Your task to perform on an android device: open a new tab in the chrome app Image 0: 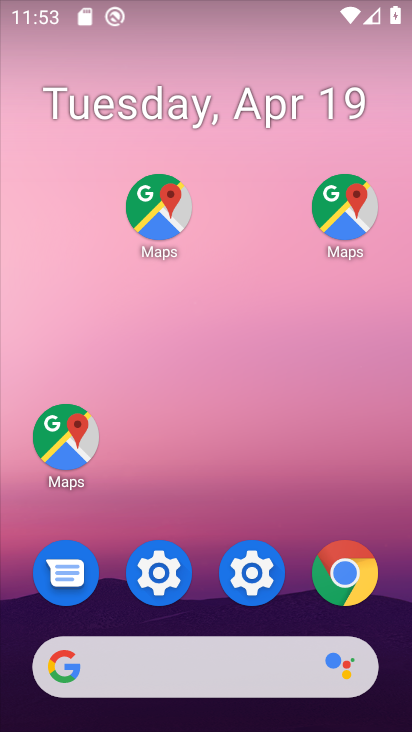
Step 0: click (355, 566)
Your task to perform on an android device: open a new tab in the chrome app Image 1: 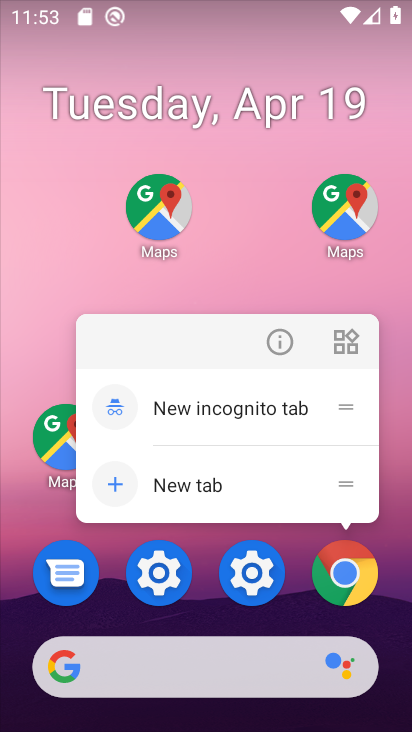
Step 1: click (335, 578)
Your task to perform on an android device: open a new tab in the chrome app Image 2: 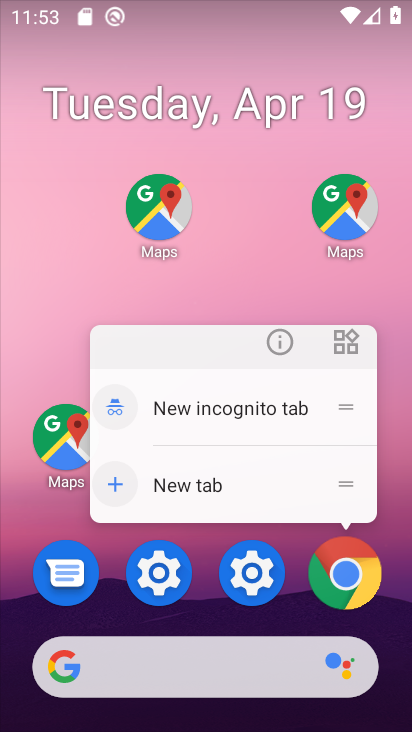
Step 2: drag from (335, 578) to (370, 577)
Your task to perform on an android device: open a new tab in the chrome app Image 3: 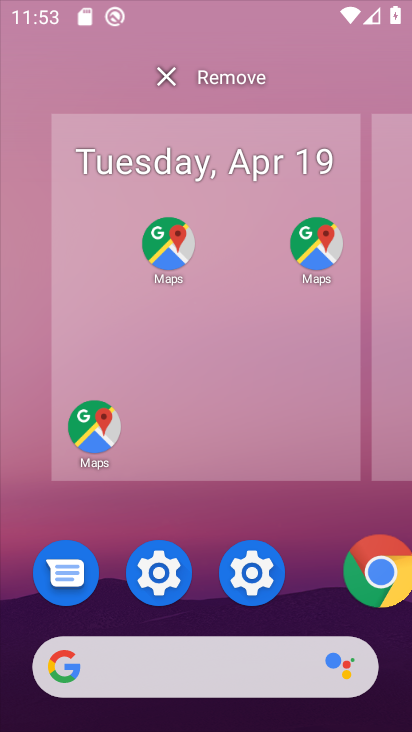
Step 3: click (370, 577)
Your task to perform on an android device: open a new tab in the chrome app Image 4: 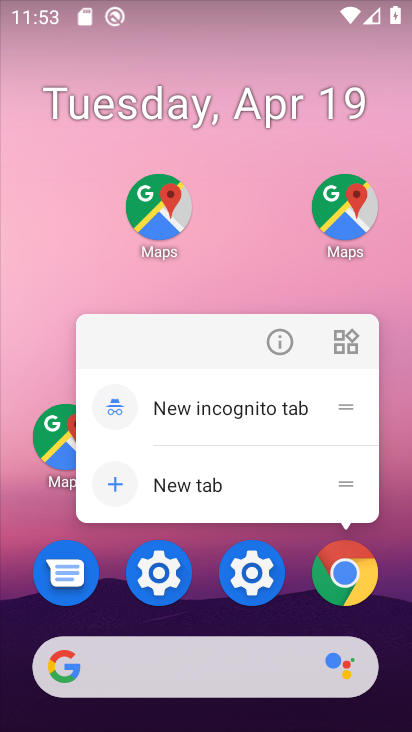
Step 4: click (346, 563)
Your task to perform on an android device: open a new tab in the chrome app Image 5: 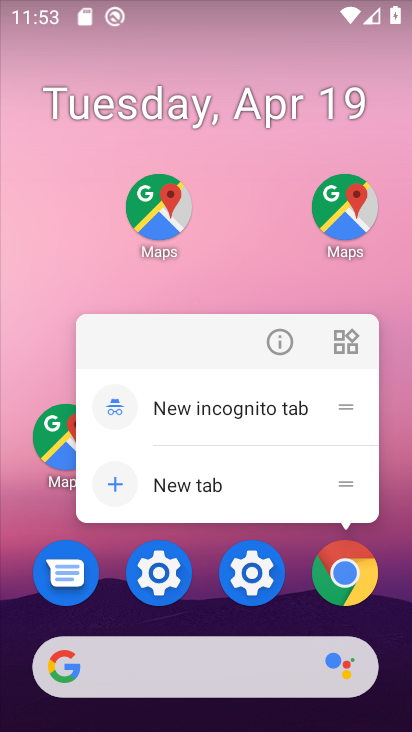
Step 5: click (330, 567)
Your task to perform on an android device: open a new tab in the chrome app Image 6: 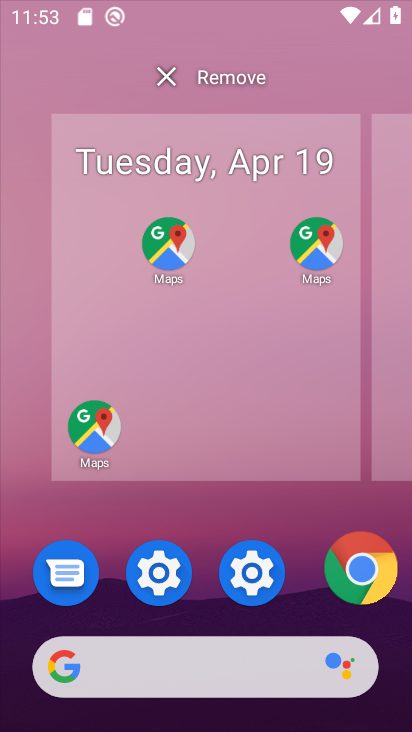
Step 6: click (346, 561)
Your task to perform on an android device: open a new tab in the chrome app Image 7: 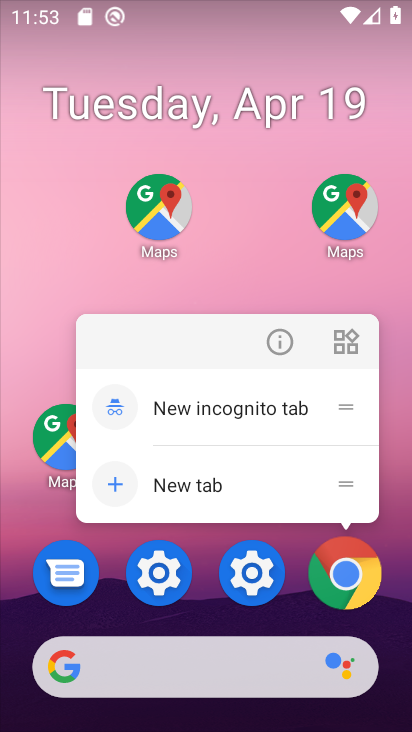
Step 7: click (359, 553)
Your task to perform on an android device: open a new tab in the chrome app Image 8: 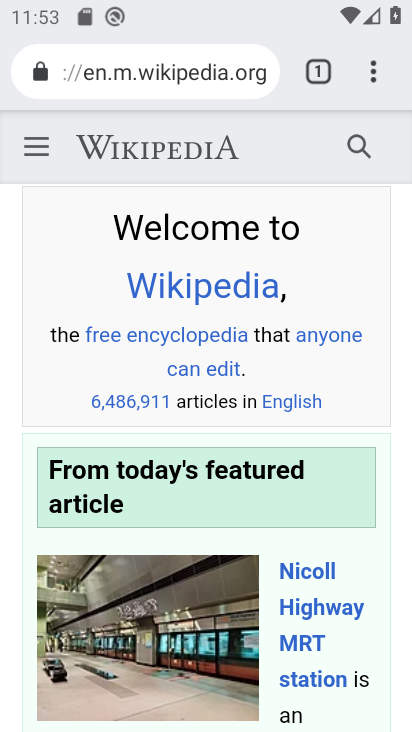
Step 8: press home button
Your task to perform on an android device: open a new tab in the chrome app Image 9: 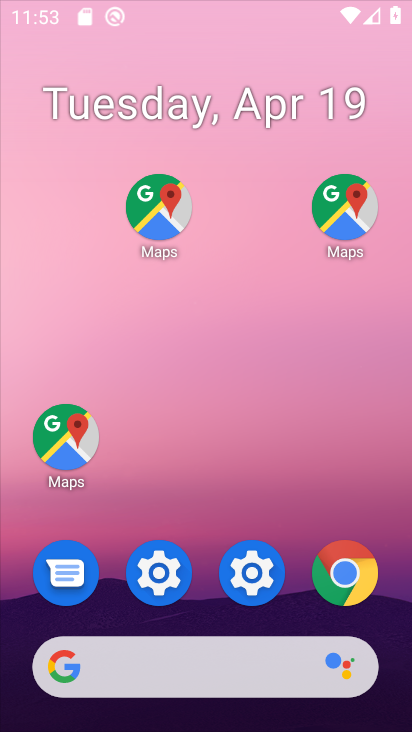
Step 9: press home button
Your task to perform on an android device: open a new tab in the chrome app Image 10: 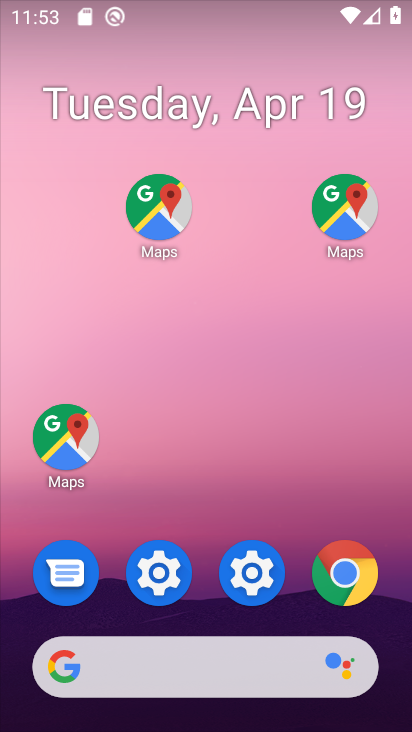
Step 10: click (347, 572)
Your task to perform on an android device: open a new tab in the chrome app Image 11: 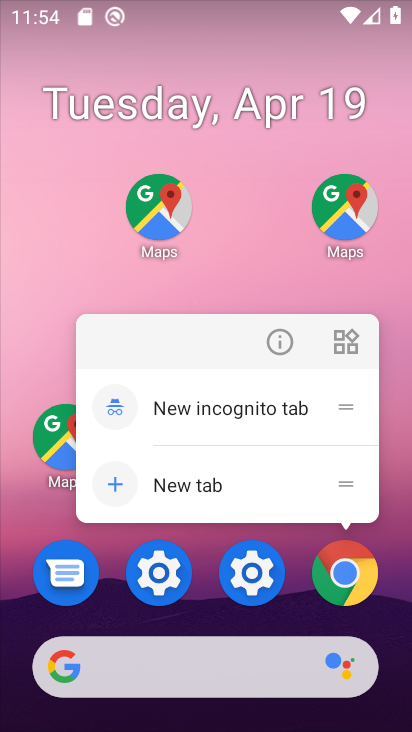
Step 11: click (352, 578)
Your task to perform on an android device: open a new tab in the chrome app Image 12: 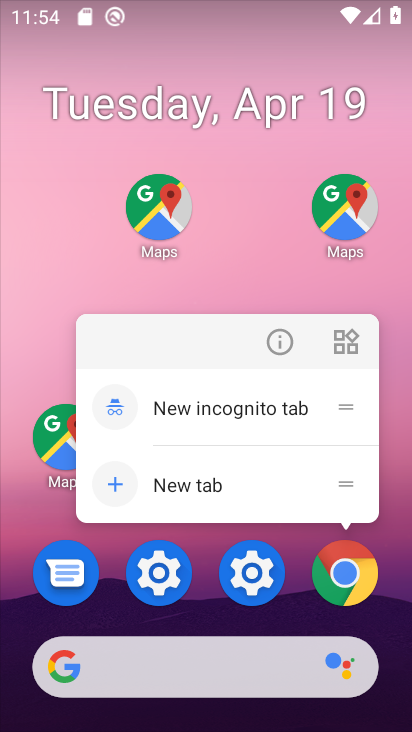
Step 12: click (342, 574)
Your task to perform on an android device: open a new tab in the chrome app Image 13: 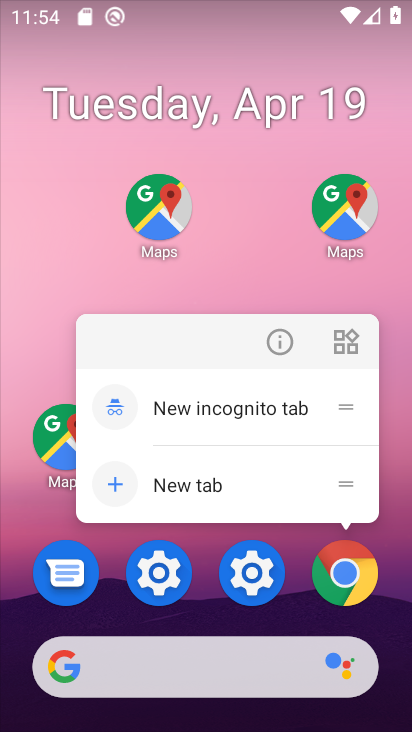
Step 13: click (342, 573)
Your task to perform on an android device: open a new tab in the chrome app Image 14: 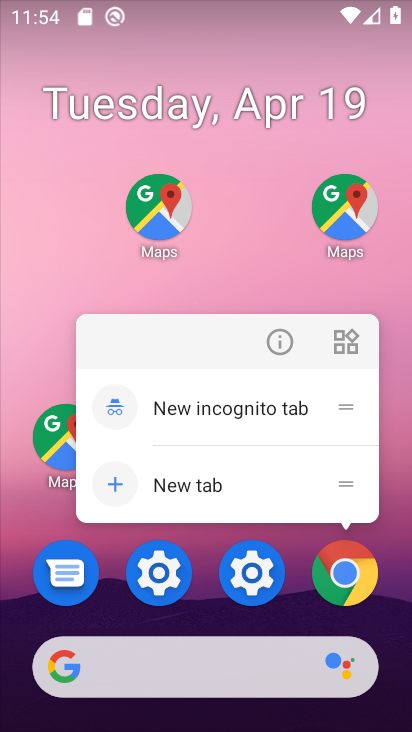
Step 14: click (107, 477)
Your task to perform on an android device: open a new tab in the chrome app Image 15: 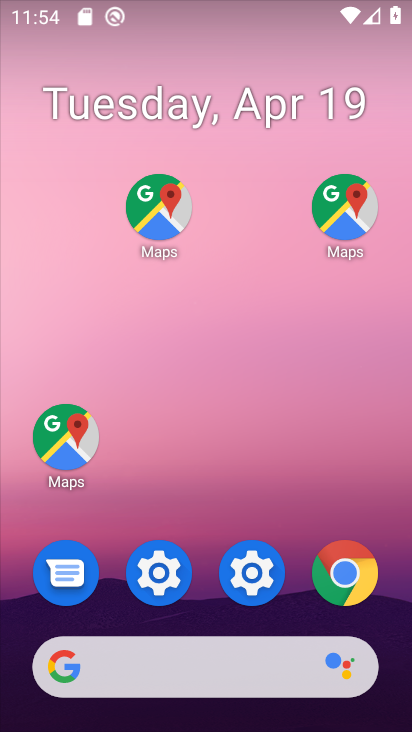
Step 15: drag from (256, 449) to (177, 70)
Your task to perform on an android device: open a new tab in the chrome app Image 16: 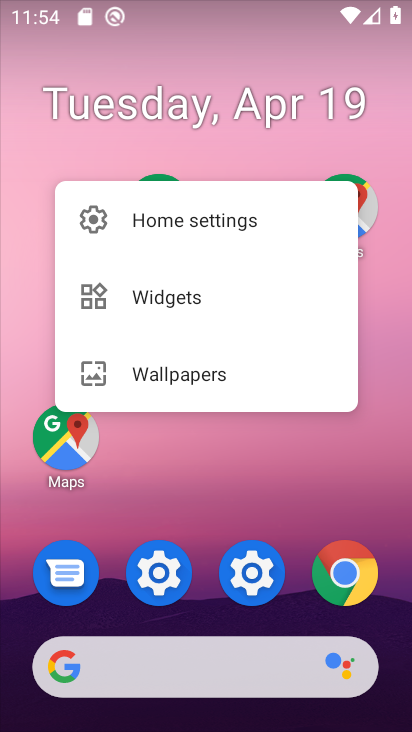
Step 16: drag from (211, 468) to (159, 221)
Your task to perform on an android device: open a new tab in the chrome app Image 17: 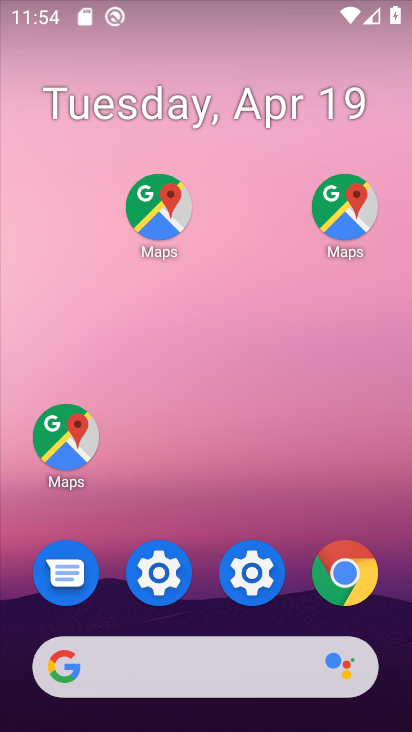
Step 17: drag from (245, 485) to (273, 189)
Your task to perform on an android device: open a new tab in the chrome app Image 18: 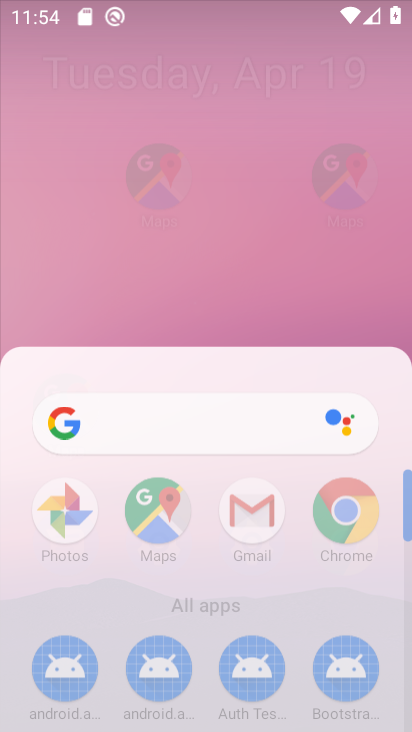
Step 18: drag from (183, 302) to (241, 99)
Your task to perform on an android device: open a new tab in the chrome app Image 19: 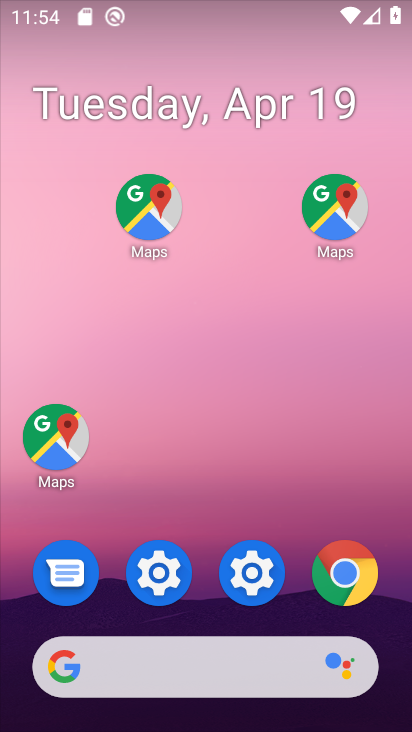
Step 19: drag from (233, 354) to (200, 125)
Your task to perform on an android device: open a new tab in the chrome app Image 20: 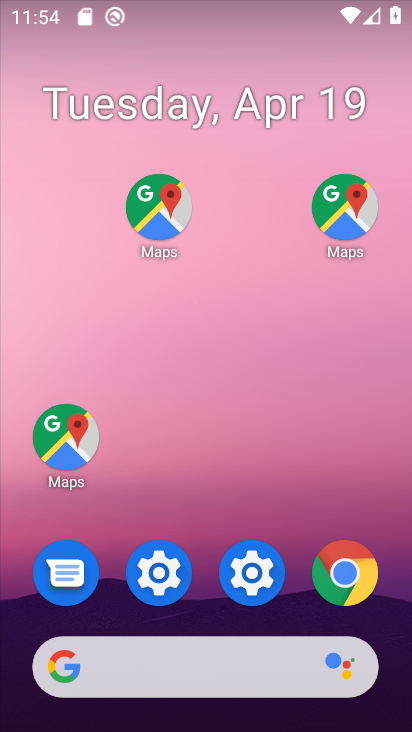
Step 20: drag from (312, 287) to (319, 145)
Your task to perform on an android device: open a new tab in the chrome app Image 21: 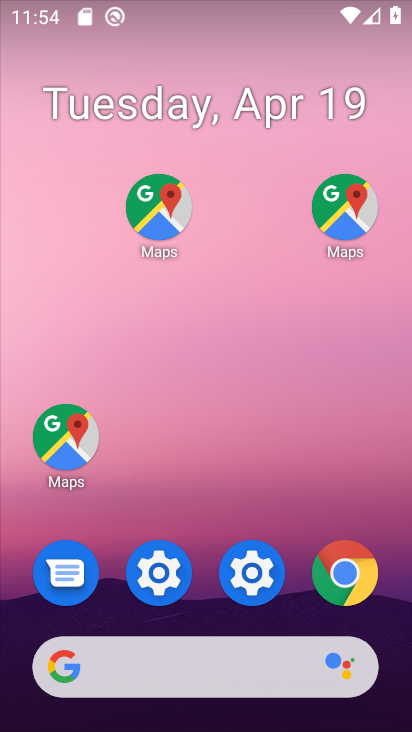
Step 21: drag from (203, 549) to (275, 201)
Your task to perform on an android device: open a new tab in the chrome app Image 22: 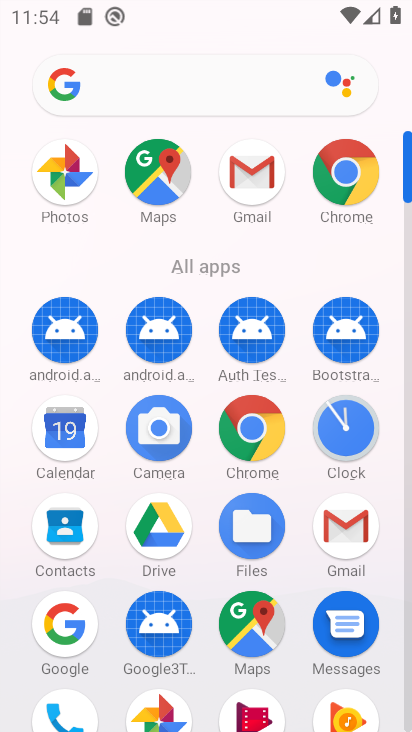
Step 22: click (349, 186)
Your task to perform on an android device: open a new tab in the chrome app Image 23: 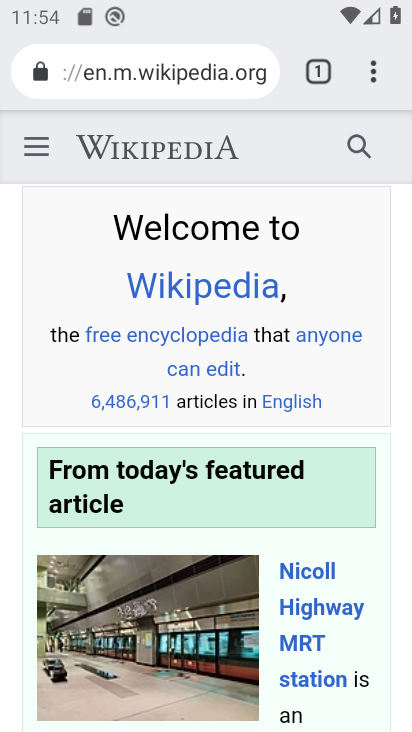
Step 23: task complete